Your task to perform on an android device: turn on sleep mode Image 0: 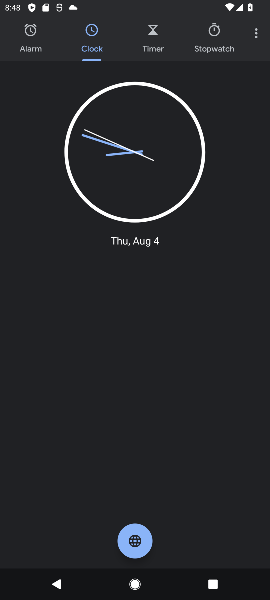
Step 0: click (256, 34)
Your task to perform on an android device: turn on sleep mode Image 1: 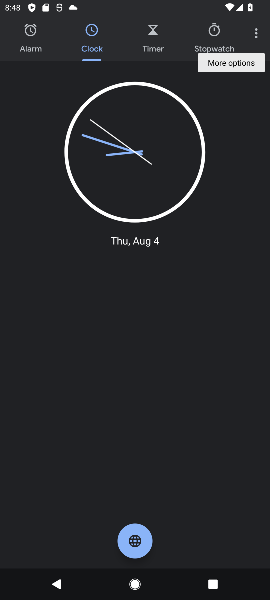
Step 1: click (254, 38)
Your task to perform on an android device: turn on sleep mode Image 2: 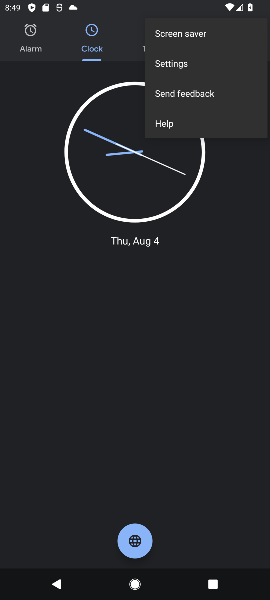
Step 2: press home button
Your task to perform on an android device: turn on sleep mode Image 3: 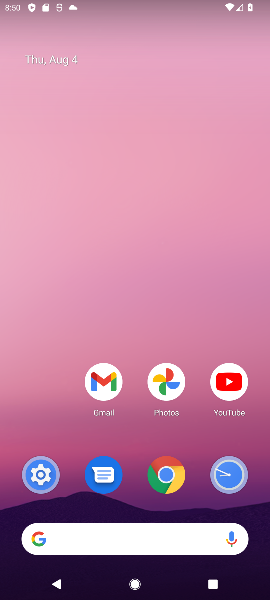
Step 3: drag from (131, 505) to (155, 54)
Your task to perform on an android device: turn on sleep mode Image 4: 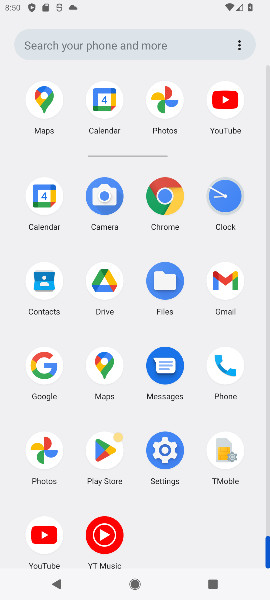
Step 4: drag from (140, 525) to (167, 160)
Your task to perform on an android device: turn on sleep mode Image 5: 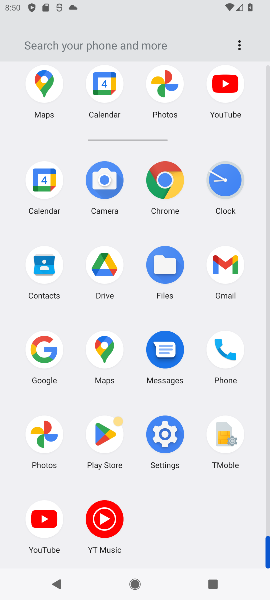
Step 5: click (174, 431)
Your task to perform on an android device: turn on sleep mode Image 6: 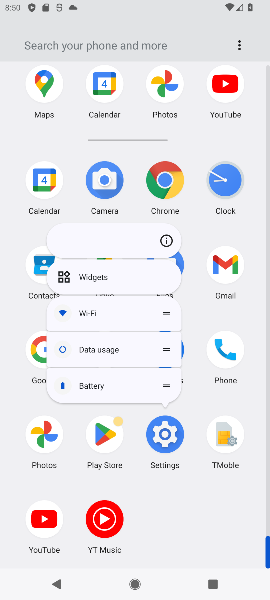
Step 6: click (167, 234)
Your task to perform on an android device: turn on sleep mode Image 7: 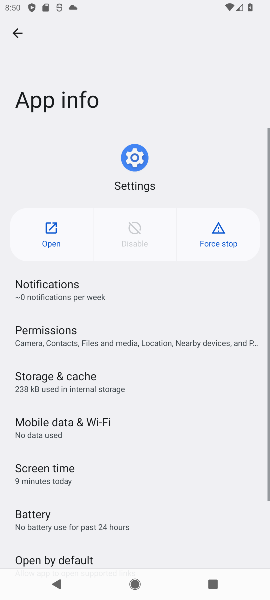
Step 7: click (61, 237)
Your task to perform on an android device: turn on sleep mode Image 8: 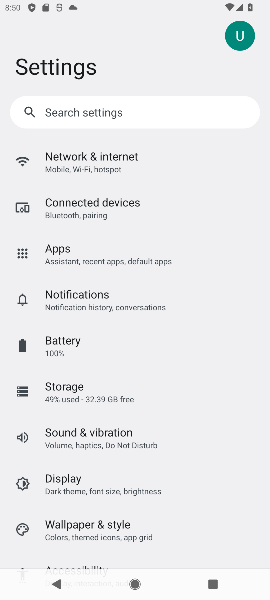
Step 8: drag from (167, 552) to (141, 153)
Your task to perform on an android device: turn on sleep mode Image 9: 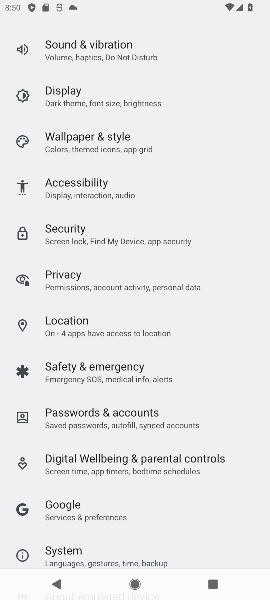
Step 9: drag from (113, 526) to (153, 223)
Your task to perform on an android device: turn on sleep mode Image 10: 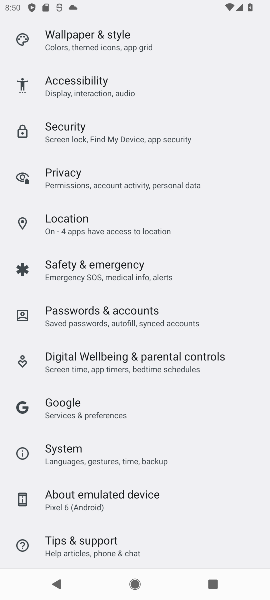
Step 10: drag from (124, 508) to (191, 207)
Your task to perform on an android device: turn on sleep mode Image 11: 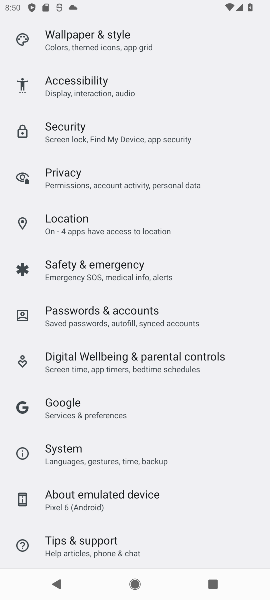
Step 11: drag from (129, 134) to (160, 172)
Your task to perform on an android device: turn on sleep mode Image 12: 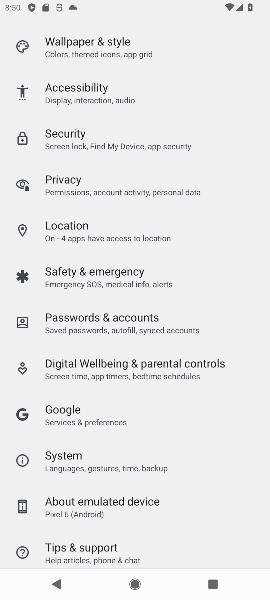
Step 12: drag from (135, 537) to (131, 374)
Your task to perform on an android device: turn on sleep mode Image 13: 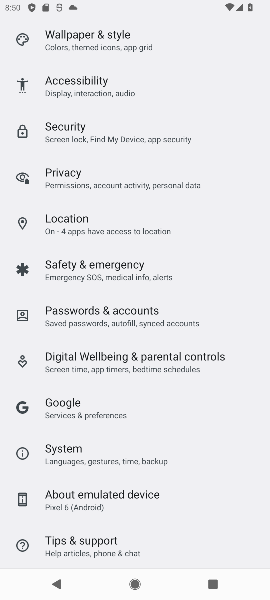
Step 13: drag from (187, 152) to (145, 165)
Your task to perform on an android device: turn on sleep mode Image 14: 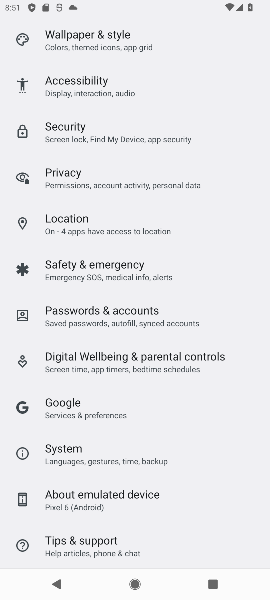
Step 14: drag from (127, 459) to (157, 183)
Your task to perform on an android device: turn on sleep mode Image 15: 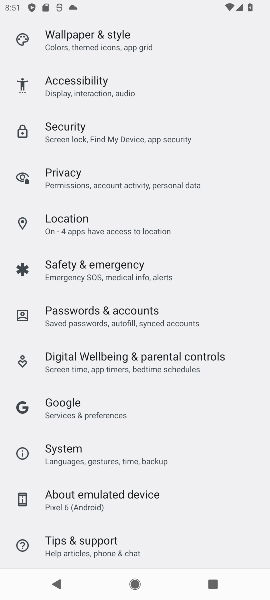
Step 15: drag from (122, 139) to (199, 471)
Your task to perform on an android device: turn on sleep mode Image 16: 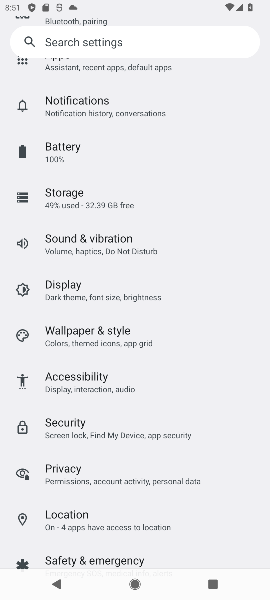
Step 16: drag from (165, 169) to (147, 590)
Your task to perform on an android device: turn on sleep mode Image 17: 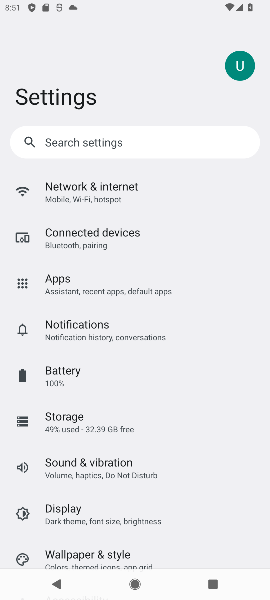
Step 17: click (91, 516)
Your task to perform on an android device: turn on sleep mode Image 18: 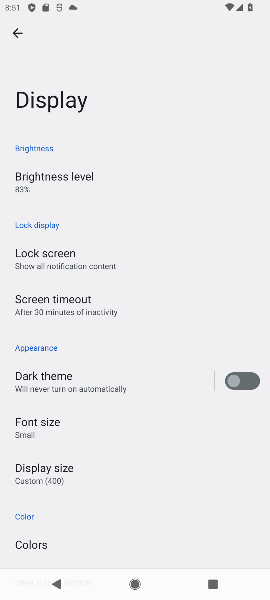
Step 18: click (96, 288)
Your task to perform on an android device: turn on sleep mode Image 19: 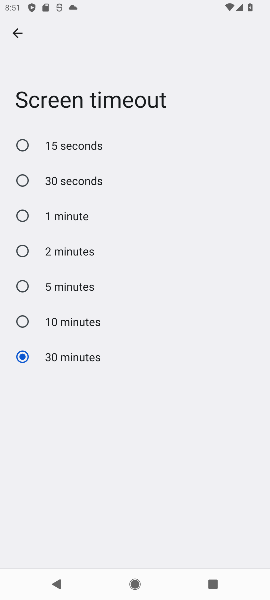
Step 19: drag from (134, 350) to (165, 151)
Your task to perform on an android device: turn on sleep mode Image 20: 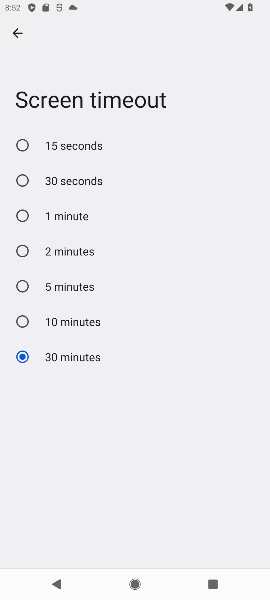
Step 20: click (158, 92)
Your task to perform on an android device: turn on sleep mode Image 21: 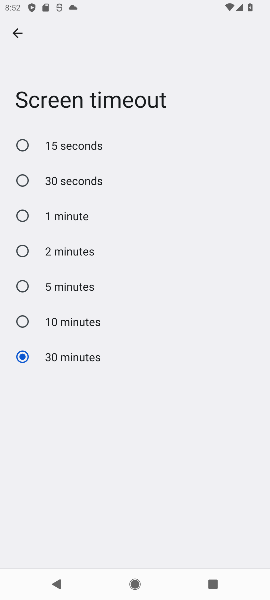
Step 21: click (163, 94)
Your task to perform on an android device: turn on sleep mode Image 22: 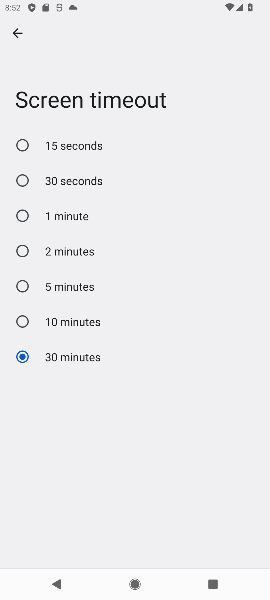
Step 22: click (163, 94)
Your task to perform on an android device: turn on sleep mode Image 23: 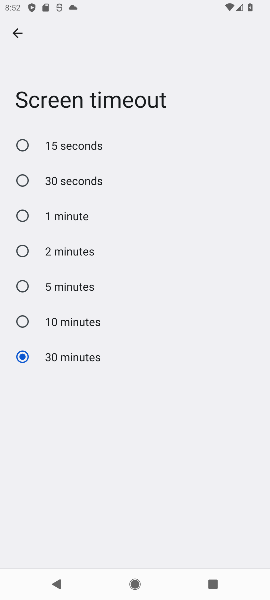
Step 23: task complete